Your task to perform on an android device: check android version Image 0: 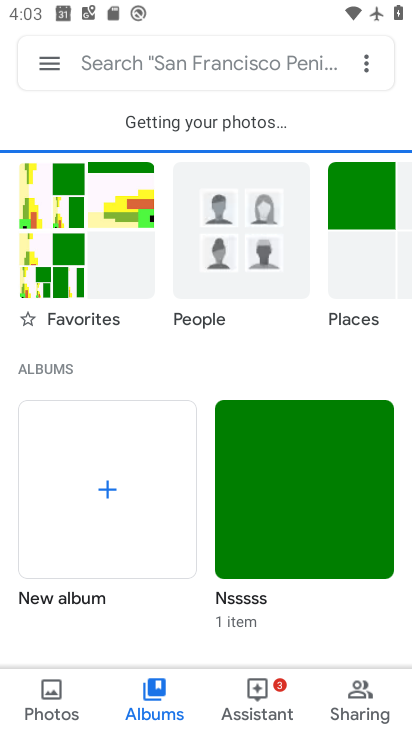
Step 0: press home button
Your task to perform on an android device: check android version Image 1: 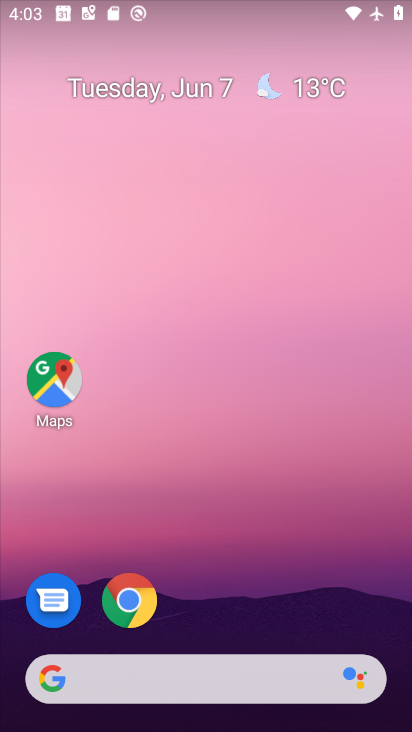
Step 1: drag from (293, 573) to (160, 145)
Your task to perform on an android device: check android version Image 2: 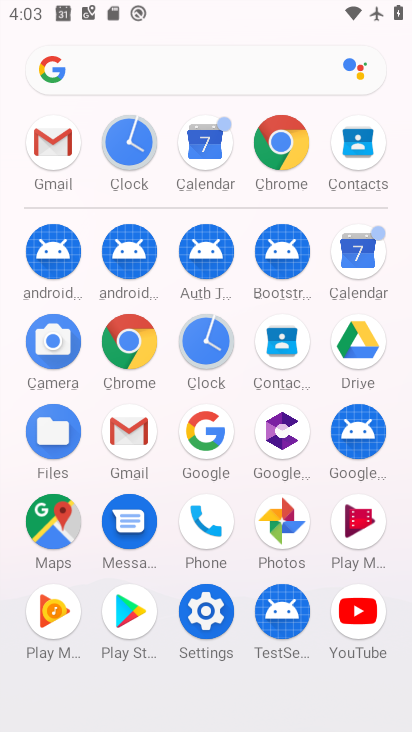
Step 2: click (205, 611)
Your task to perform on an android device: check android version Image 3: 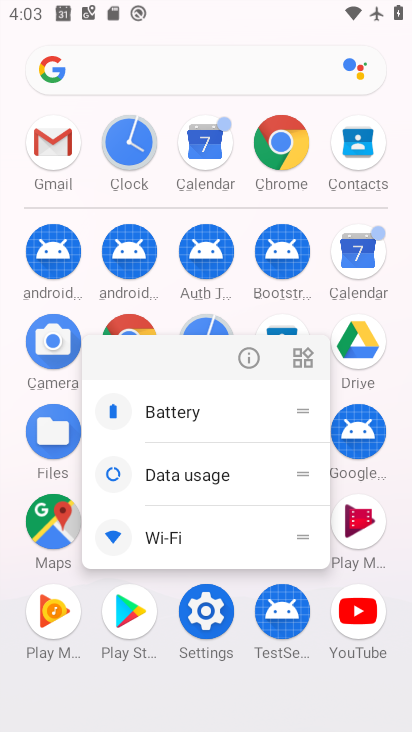
Step 3: click (208, 606)
Your task to perform on an android device: check android version Image 4: 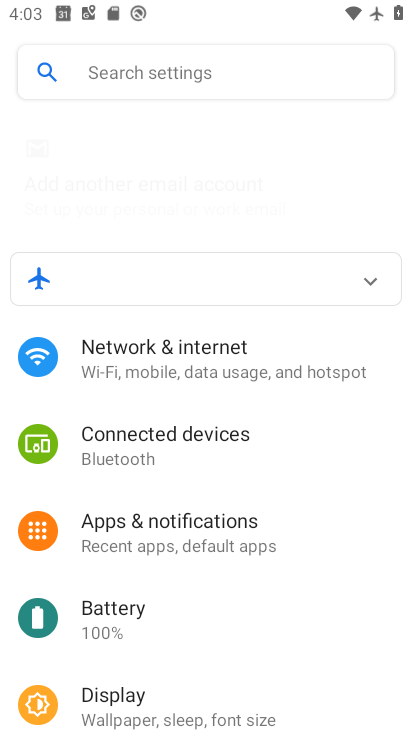
Step 4: drag from (223, 595) to (267, 88)
Your task to perform on an android device: check android version Image 5: 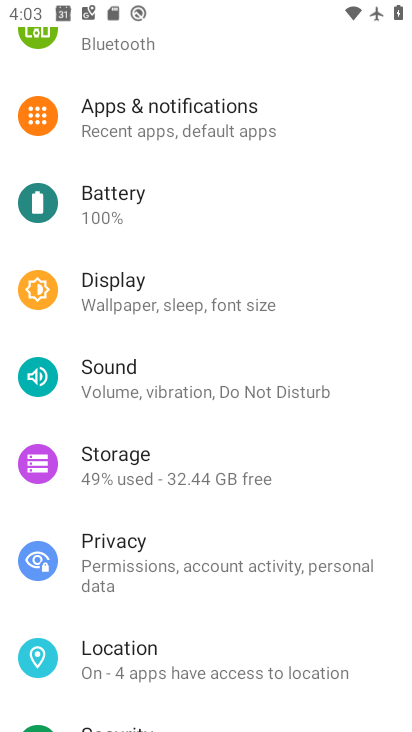
Step 5: click (268, 74)
Your task to perform on an android device: check android version Image 6: 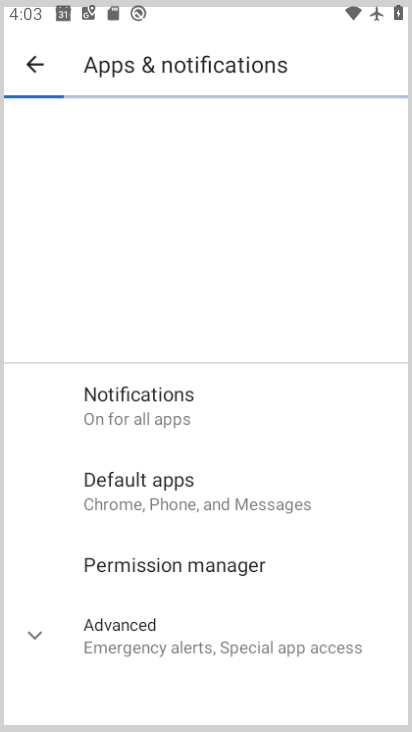
Step 6: drag from (195, 557) to (228, 120)
Your task to perform on an android device: check android version Image 7: 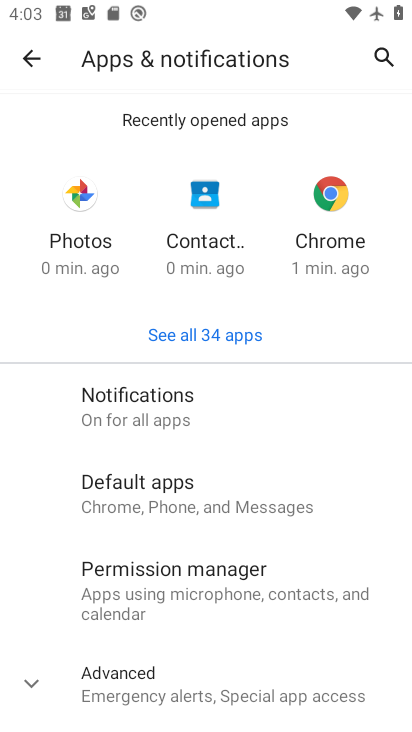
Step 7: click (26, 54)
Your task to perform on an android device: check android version Image 8: 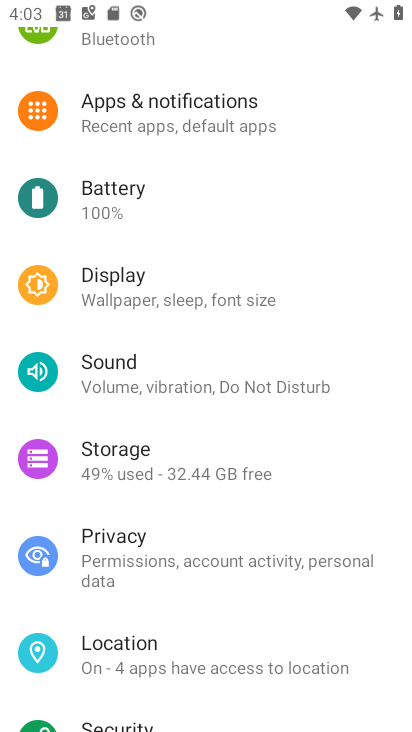
Step 8: drag from (248, 644) to (274, 208)
Your task to perform on an android device: check android version Image 9: 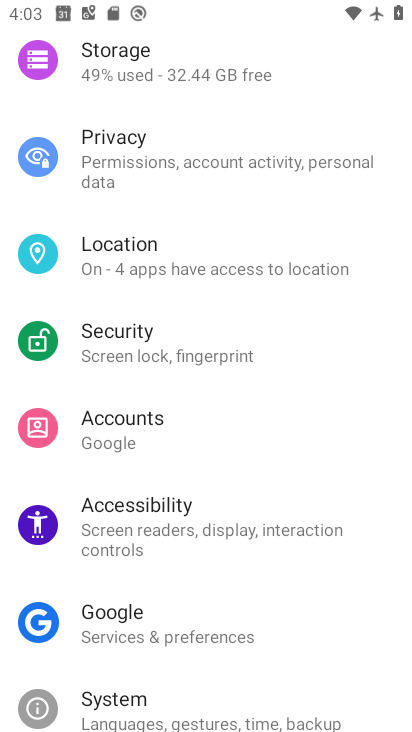
Step 9: drag from (332, 690) to (325, 125)
Your task to perform on an android device: check android version Image 10: 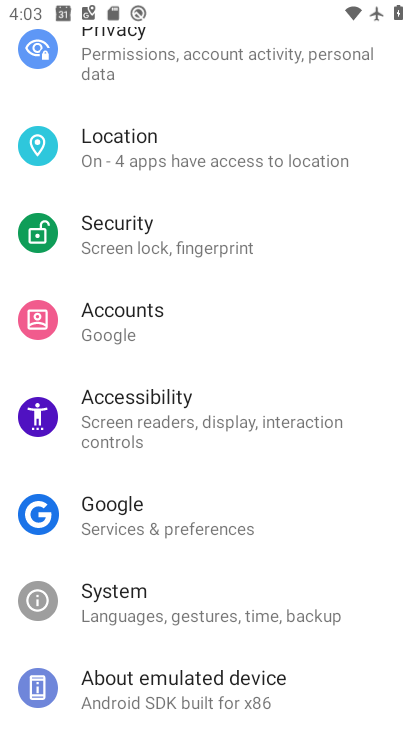
Step 10: click (199, 682)
Your task to perform on an android device: check android version Image 11: 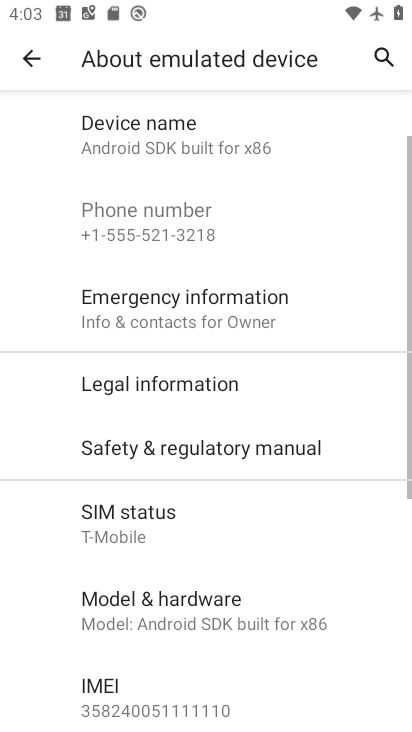
Step 11: drag from (302, 648) to (332, 175)
Your task to perform on an android device: check android version Image 12: 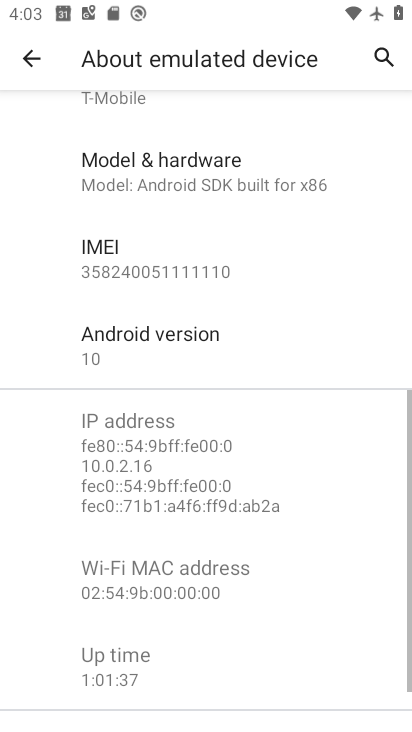
Step 12: drag from (206, 605) to (289, 207)
Your task to perform on an android device: check android version Image 13: 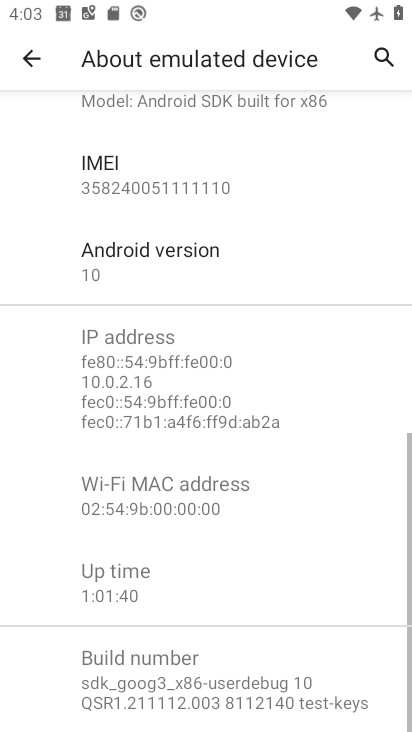
Step 13: click (136, 269)
Your task to perform on an android device: check android version Image 14: 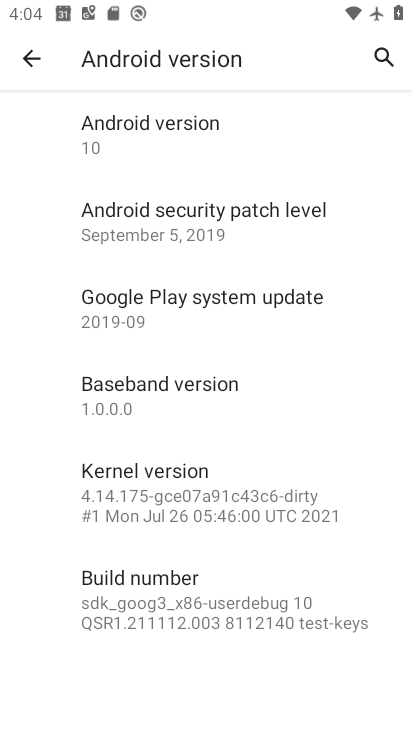
Step 14: task complete